Your task to perform on an android device: Go to wifi settings Image 0: 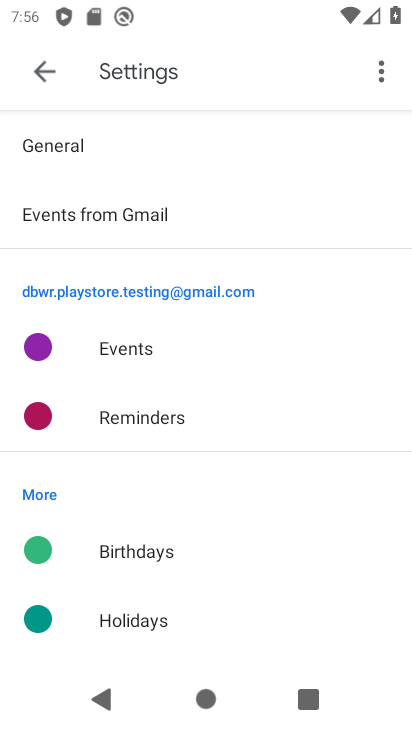
Step 0: press home button
Your task to perform on an android device: Go to wifi settings Image 1: 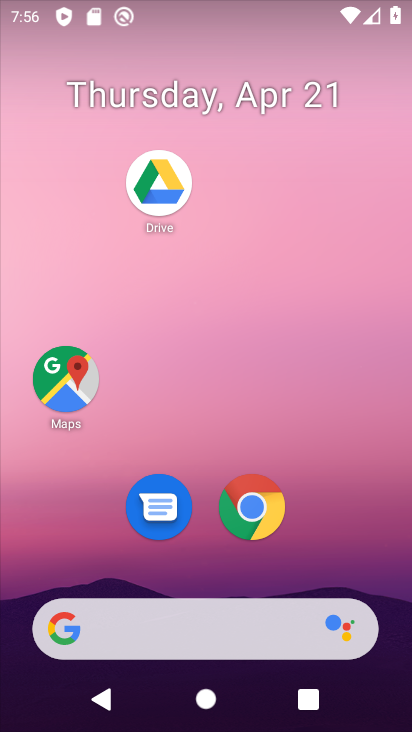
Step 1: drag from (366, 546) to (369, 117)
Your task to perform on an android device: Go to wifi settings Image 2: 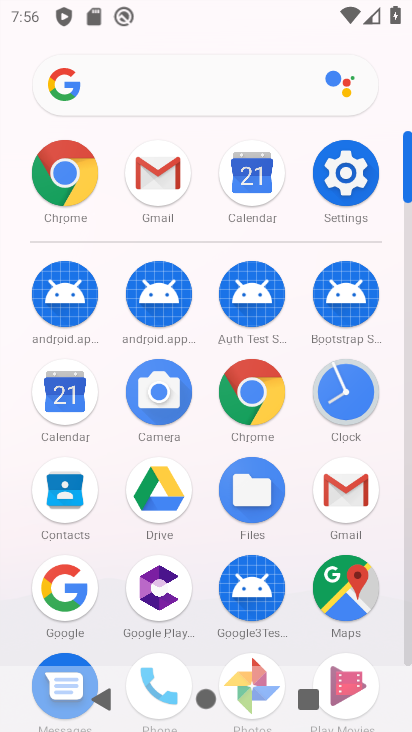
Step 2: click (359, 183)
Your task to perform on an android device: Go to wifi settings Image 3: 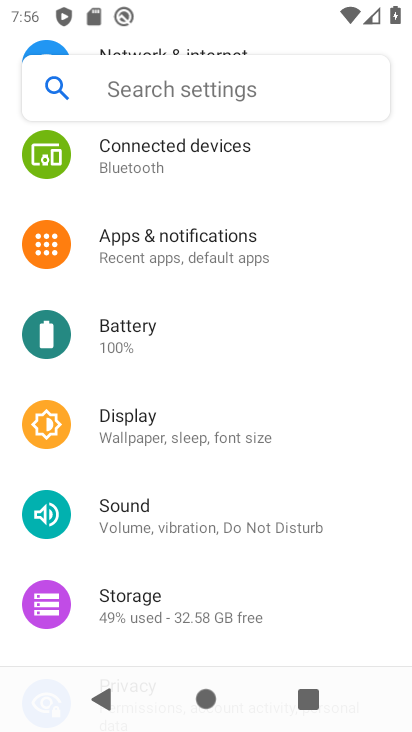
Step 3: drag from (368, 589) to (368, 407)
Your task to perform on an android device: Go to wifi settings Image 4: 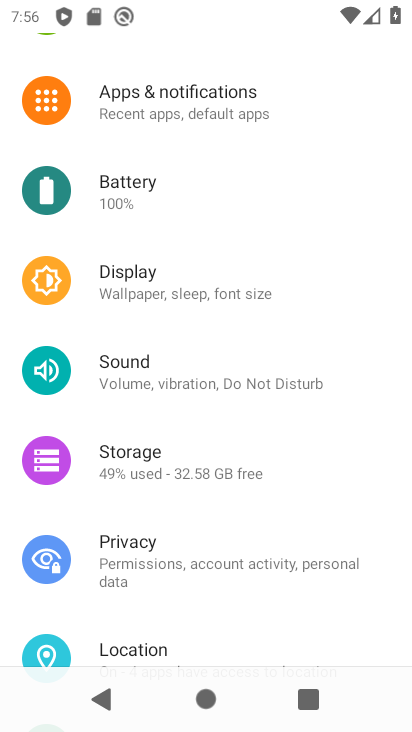
Step 4: drag from (361, 620) to (367, 454)
Your task to perform on an android device: Go to wifi settings Image 5: 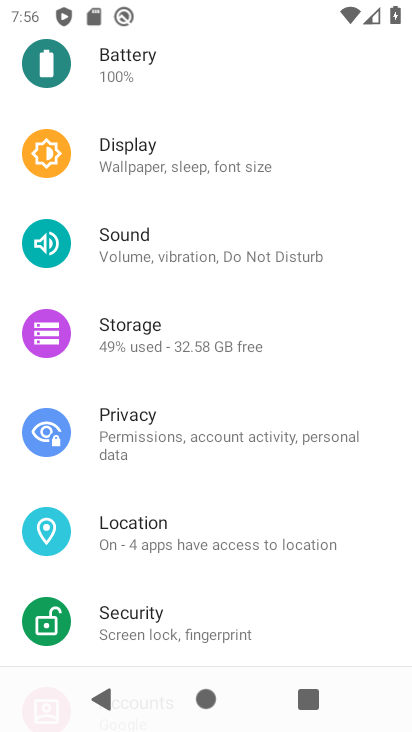
Step 5: drag from (352, 617) to (358, 439)
Your task to perform on an android device: Go to wifi settings Image 6: 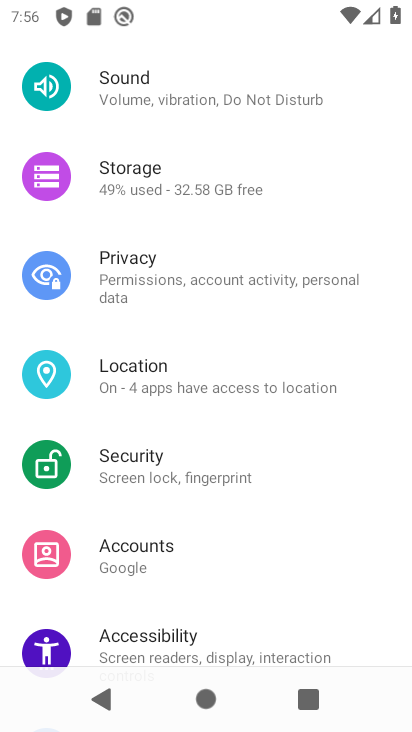
Step 6: drag from (358, 617) to (362, 455)
Your task to perform on an android device: Go to wifi settings Image 7: 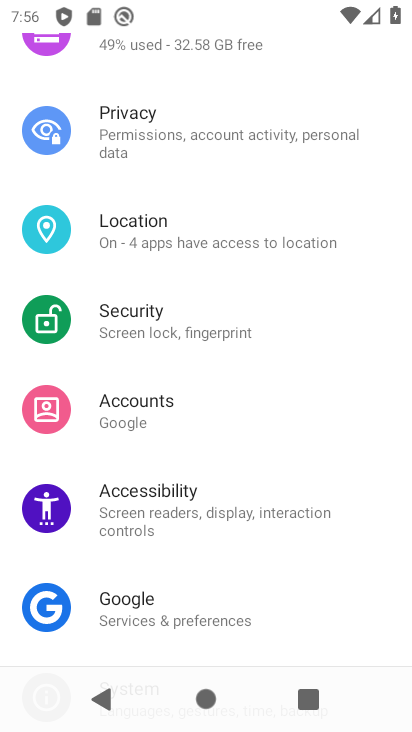
Step 7: drag from (366, 613) to (376, 454)
Your task to perform on an android device: Go to wifi settings Image 8: 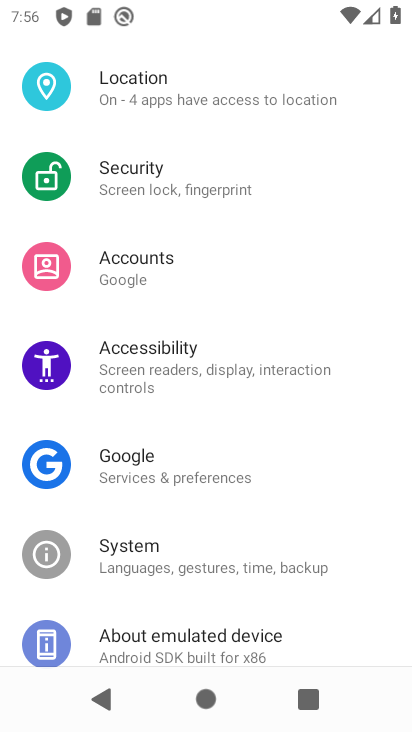
Step 8: drag from (360, 613) to (377, 428)
Your task to perform on an android device: Go to wifi settings Image 9: 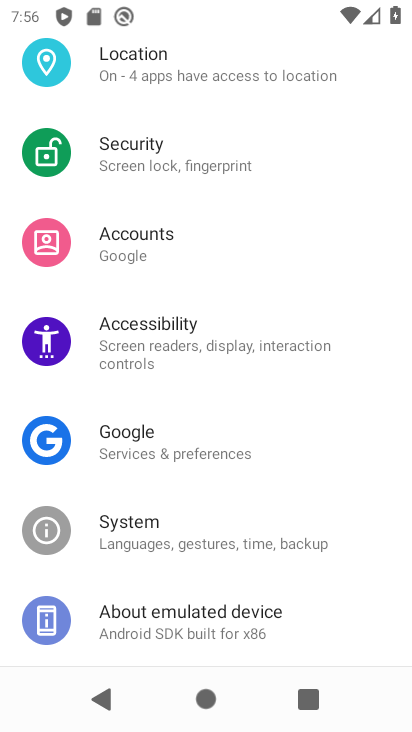
Step 9: drag from (379, 281) to (365, 453)
Your task to perform on an android device: Go to wifi settings Image 10: 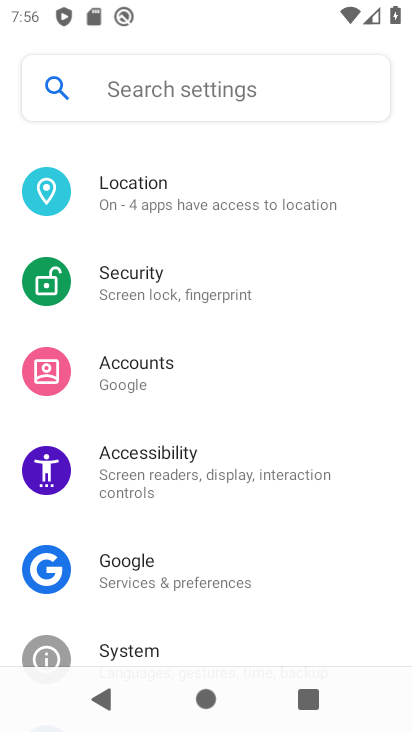
Step 10: drag from (375, 288) to (369, 456)
Your task to perform on an android device: Go to wifi settings Image 11: 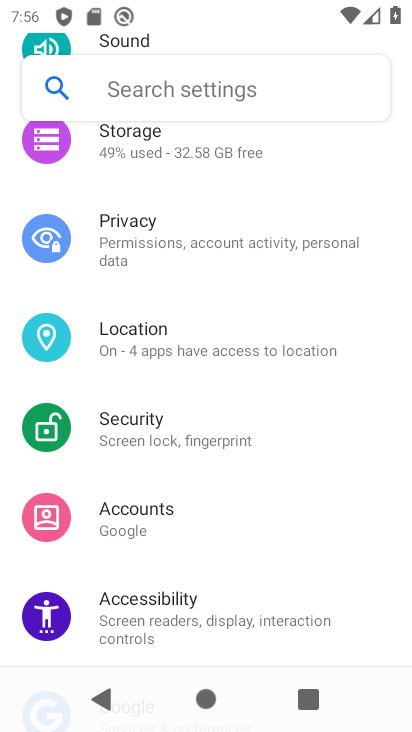
Step 11: drag from (377, 310) to (376, 455)
Your task to perform on an android device: Go to wifi settings Image 12: 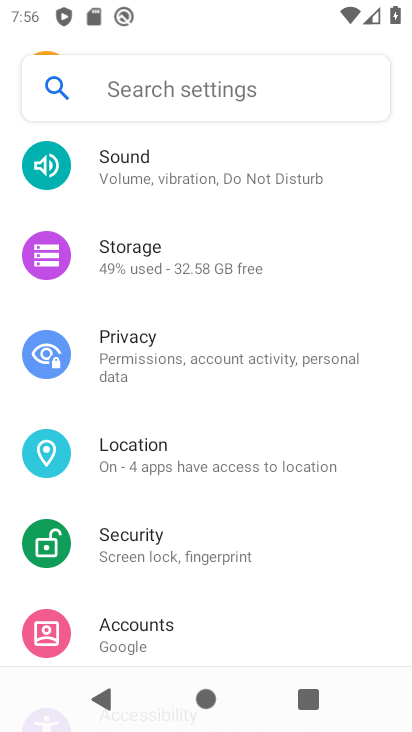
Step 12: drag from (379, 291) to (382, 431)
Your task to perform on an android device: Go to wifi settings Image 13: 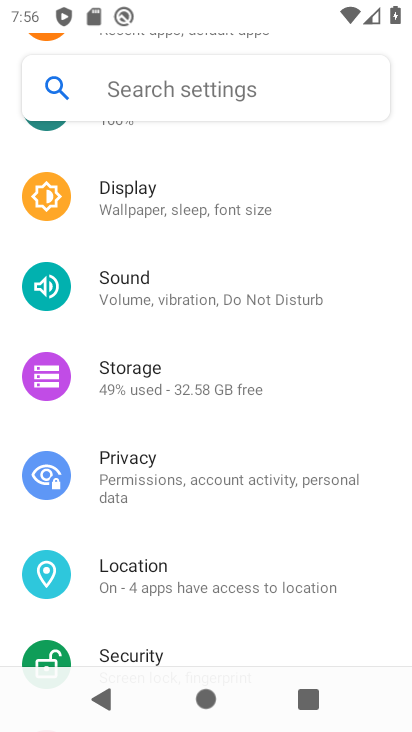
Step 13: drag from (375, 285) to (373, 425)
Your task to perform on an android device: Go to wifi settings Image 14: 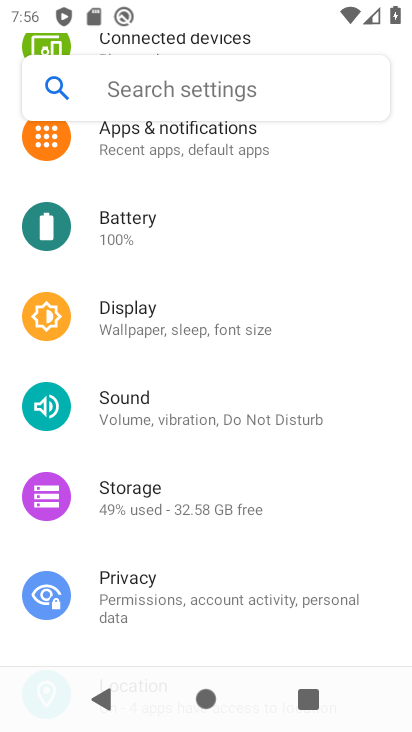
Step 14: drag from (362, 287) to (360, 424)
Your task to perform on an android device: Go to wifi settings Image 15: 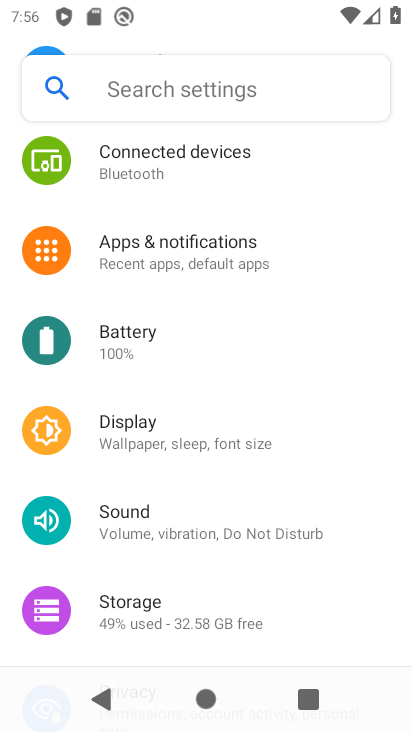
Step 15: drag from (358, 275) to (359, 403)
Your task to perform on an android device: Go to wifi settings Image 16: 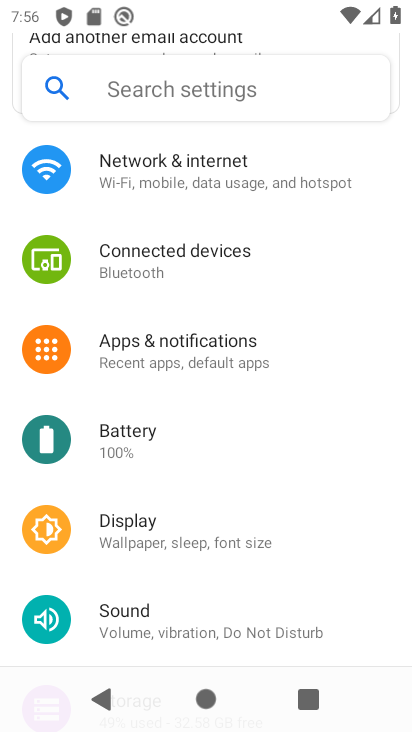
Step 16: drag from (366, 252) to (369, 387)
Your task to perform on an android device: Go to wifi settings Image 17: 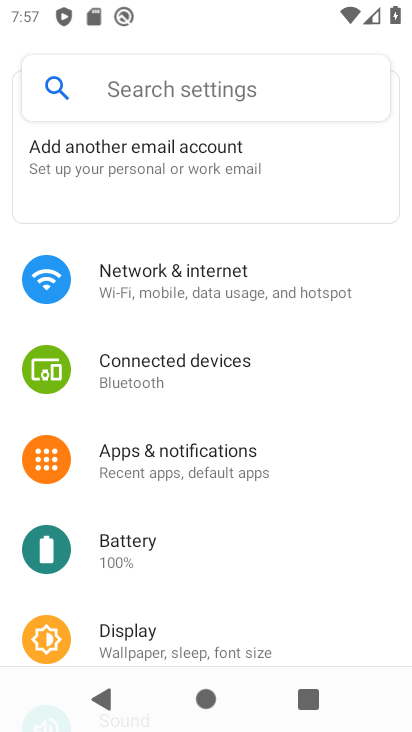
Step 17: click (225, 290)
Your task to perform on an android device: Go to wifi settings Image 18: 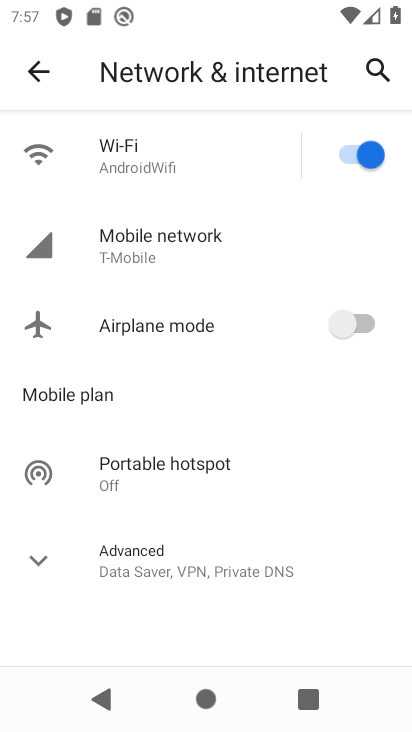
Step 18: click (153, 154)
Your task to perform on an android device: Go to wifi settings Image 19: 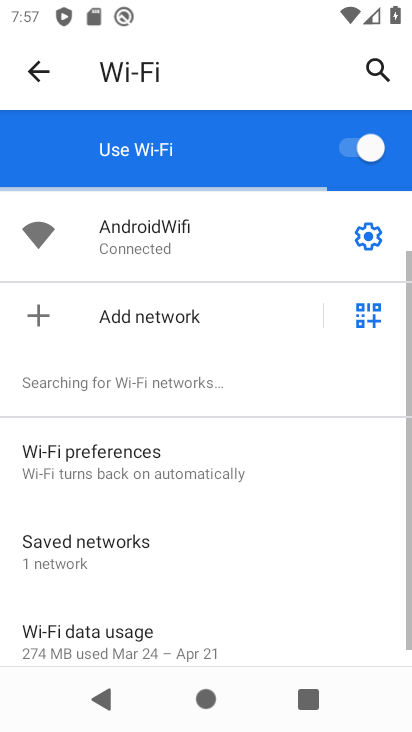
Step 19: task complete